Your task to perform on an android device: check google app version Image 0: 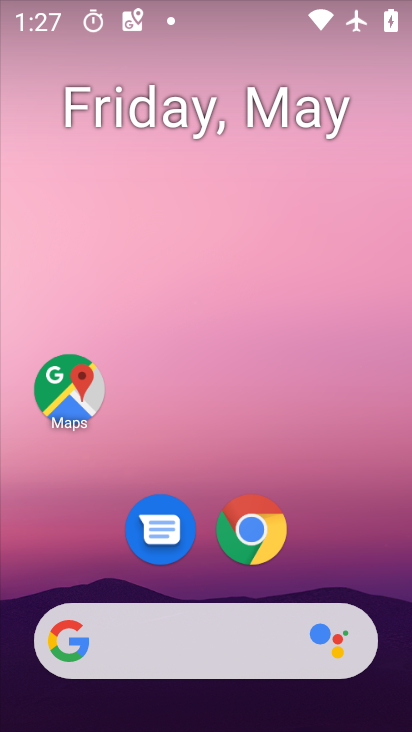
Step 0: drag from (269, 650) to (126, 111)
Your task to perform on an android device: check google app version Image 1: 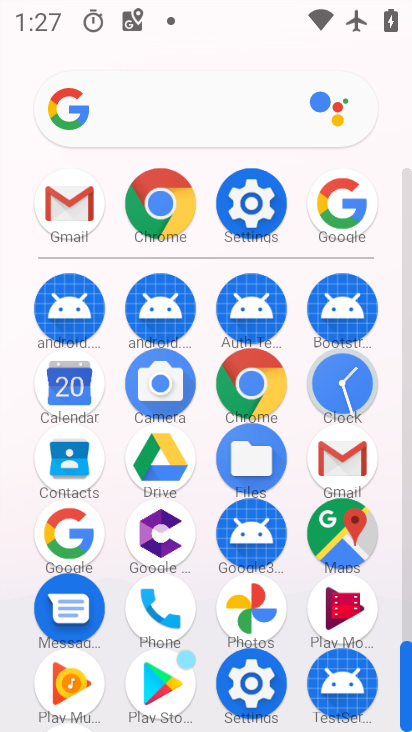
Step 1: drag from (155, 510) to (145, 374)
Your task to perform on an android device: check google app version Image 2: 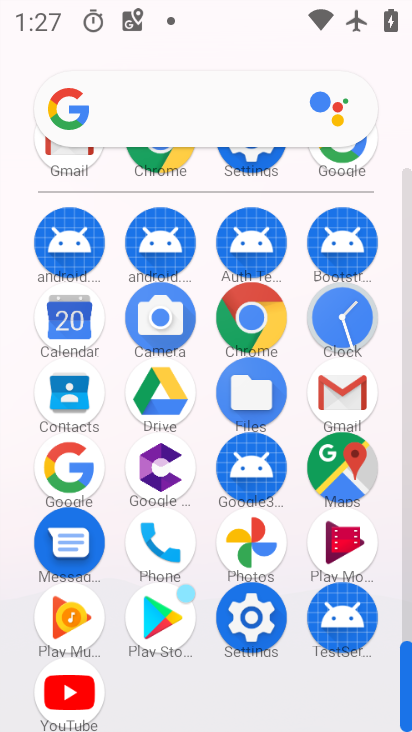
Step 2: click (49, 473)
Your task to perform on an android device: check google app version Image 3: 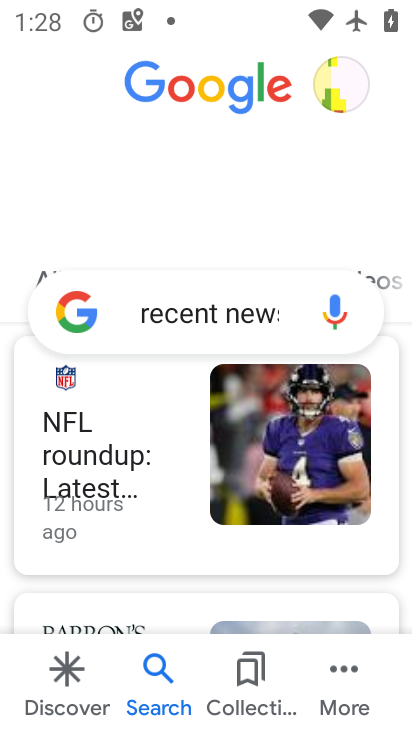
Step 3: click (342, 680)
Your task to perform on an android device: check google app version Image 4: 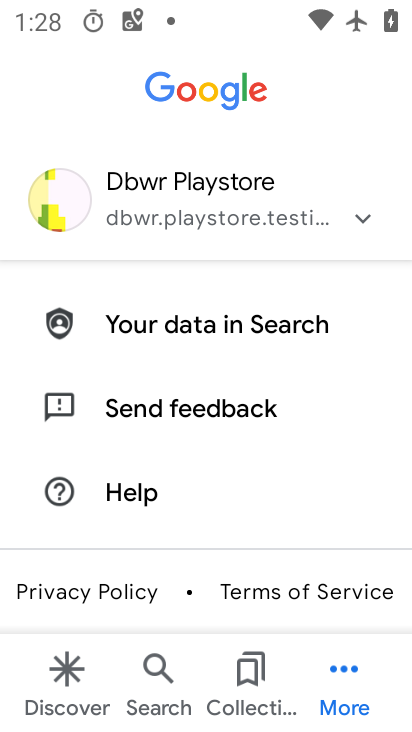
Step 4: drag from (177, 521) to (131, 79)
Your task to perform on an android device: check google app version Image 5: 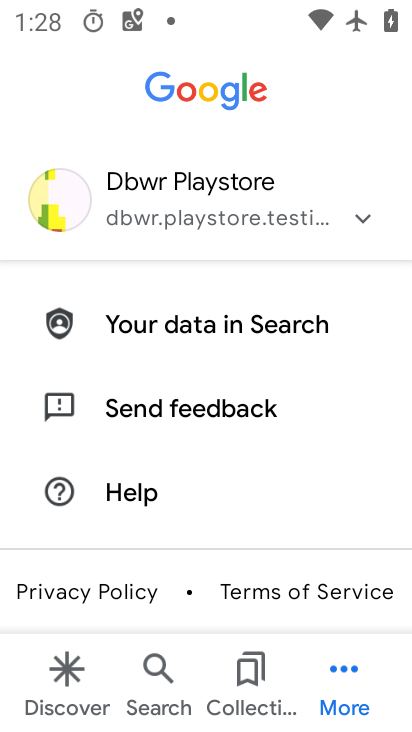
Step 5: drag from (194, 423) to (195, 201)
Your task to perform on an android device: check google app version Image 6: 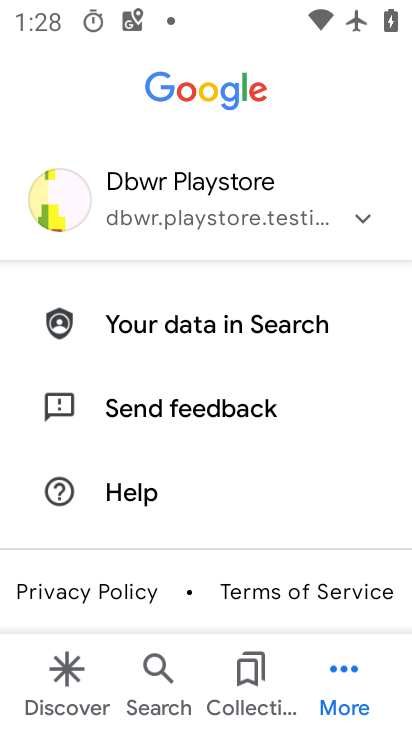
Step 6: drag from (227, 382) to (270, 690)
Your task to perform on an android device: check google app version Image 7: 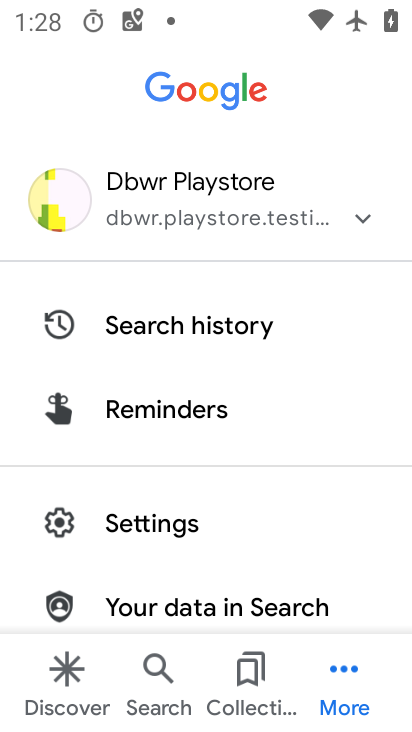
Step 7: click (175, 533)
Your task to perform on an android device: check google app version Image 8: 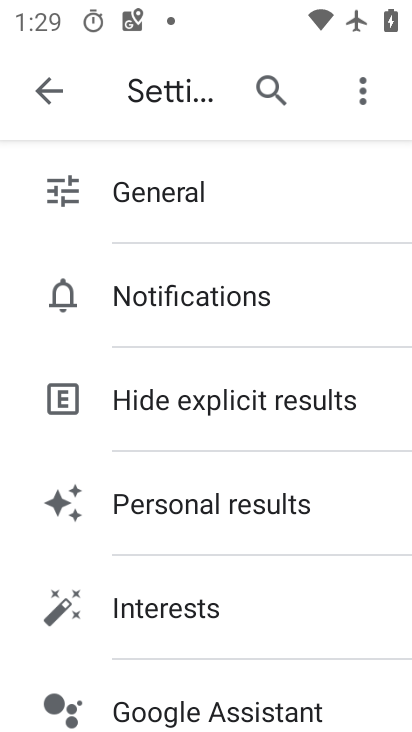
Step 8: drag from (194, 549) to (118, 227)
Your task to perform on an android device: check google app version Image 9: 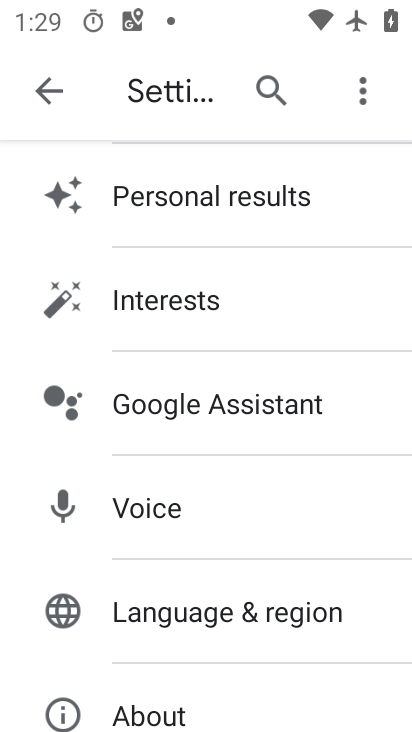
Step 9: drag from (116, 531) to (102, 341)
Your task to perform on an android device: check google app version Image 10: 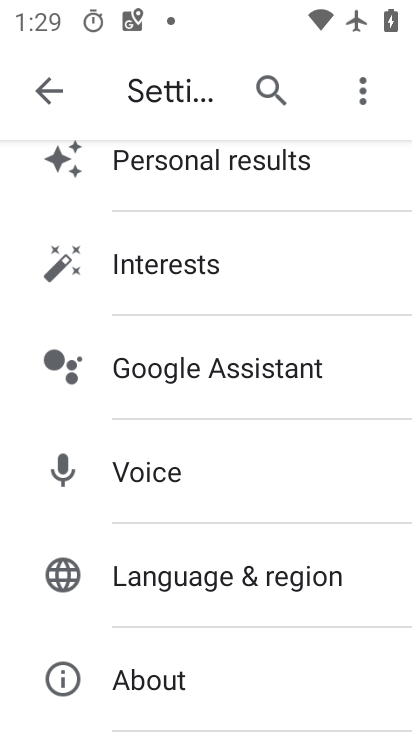
Step 10: click (171, 680)
Your task to perform on an android device: check google app version Image 11: 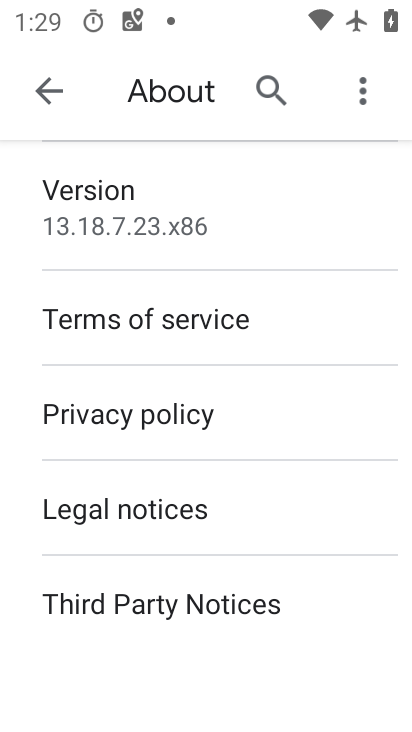
Step 11: task complete